Your task to perform on an android device: make emails show in primary in the gmail app Image 0: 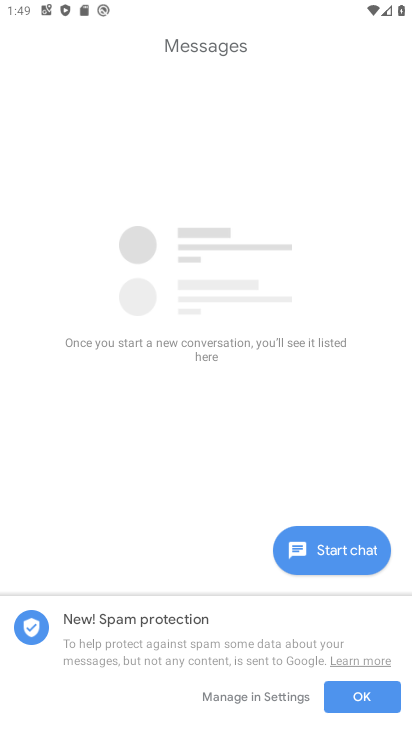
Step 0: press home button
Your task to perform on an android device: make emails show in primary in the gmail app Image 1: 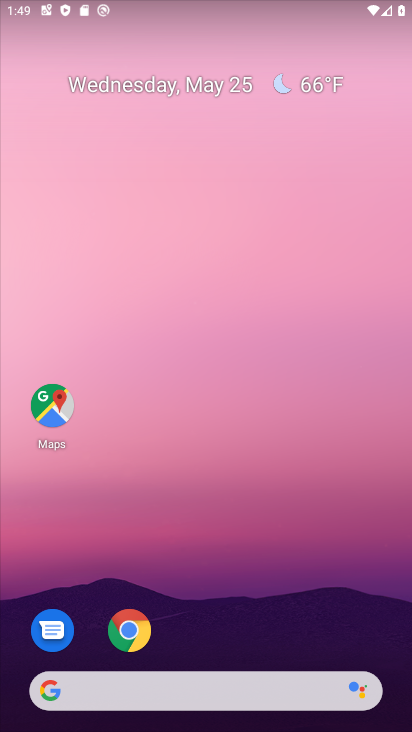
Step 1: drag from (210, 643) to (215, 158)
Your task to perform on an android device: make emails show in primary in the gmail app Image 2: 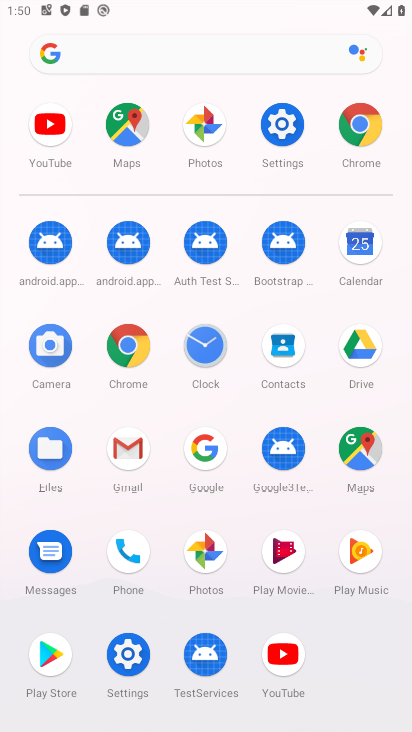
Step 2: click (123, 443)
Your task to perform on an android device: make emails show in primary in the gmail app Image 3: 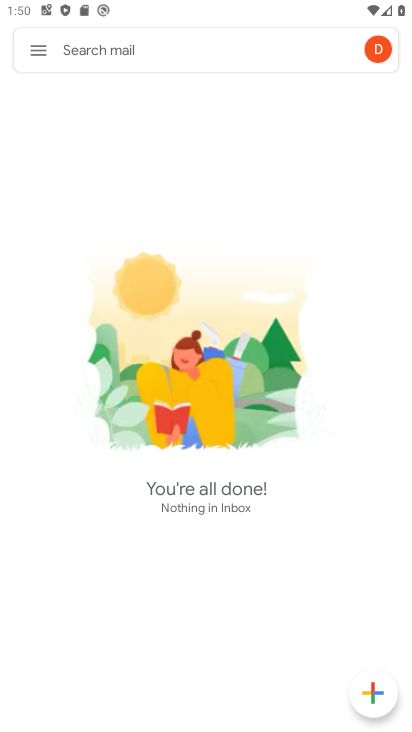
Step 3: click (41, 45)
Your task to perform on an android device: make emails show in primary in the gmail app Image 4: 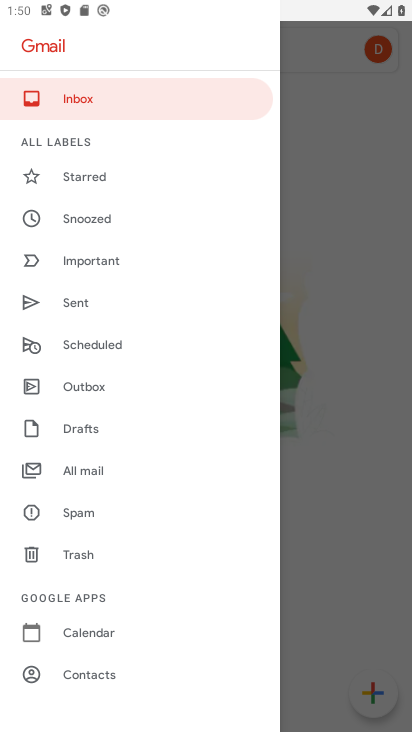
Step 4: drag from (123, 637) to (144, 249)
Your task to perform on an android device: make emails show in primary in the gmail app Image 5: 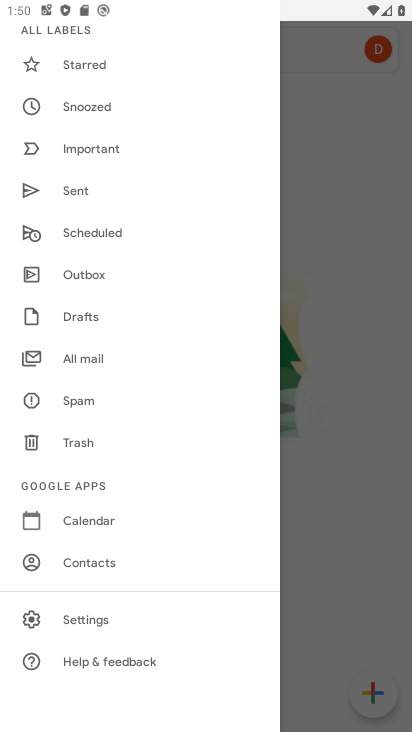
Step 5: click (119, 621)
Your task to perform on an android device: make emails show in primary in the gmail app Image 6: 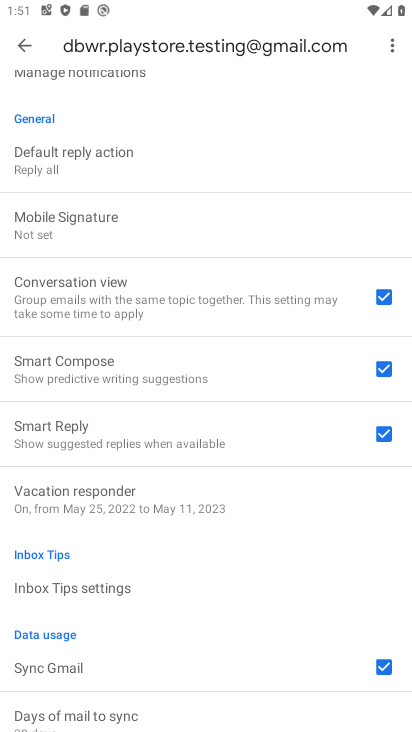
Step 6: drag from (184, 578) to (201, 304)
Your task to perform on an android device: make emails show in primary in the gmail app Image 7: 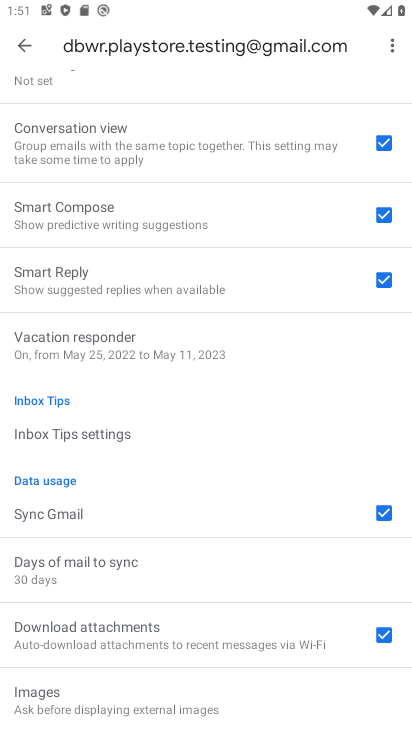
Step 7: drag from (171, 283) to (172, 650)
Your task to perform on an android device: make emails show in primary in the gmail app Image 8: 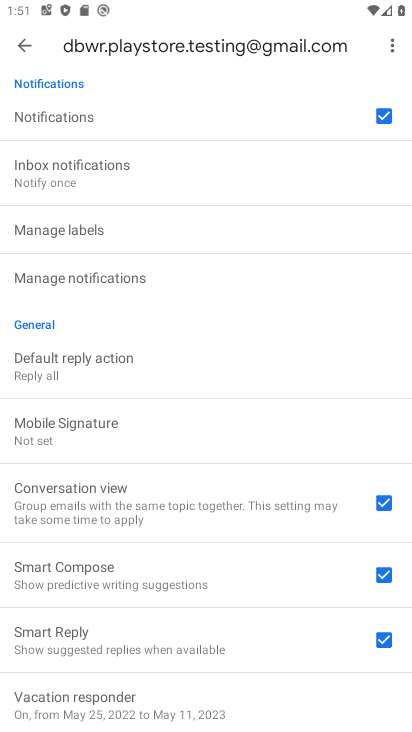
Step 8: drag from (94, 135) to (89, 714)
Your task to perform on an android device: make emails show in primary in the gmail app Image 9: 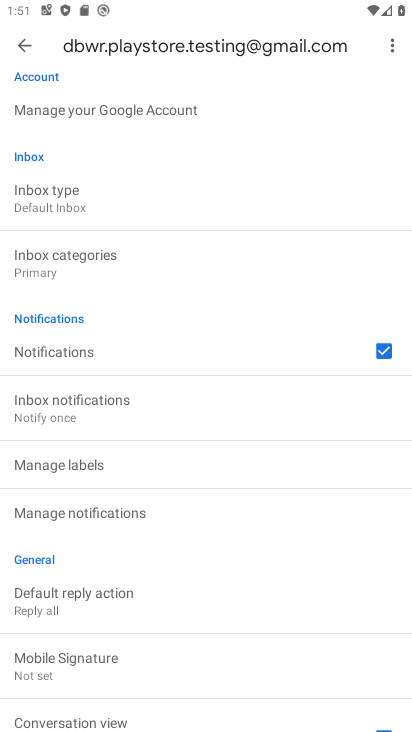
Step 9: click (87, 207)
Your task to perform on an android device: make emails show in primary in the gmail app Image 10: 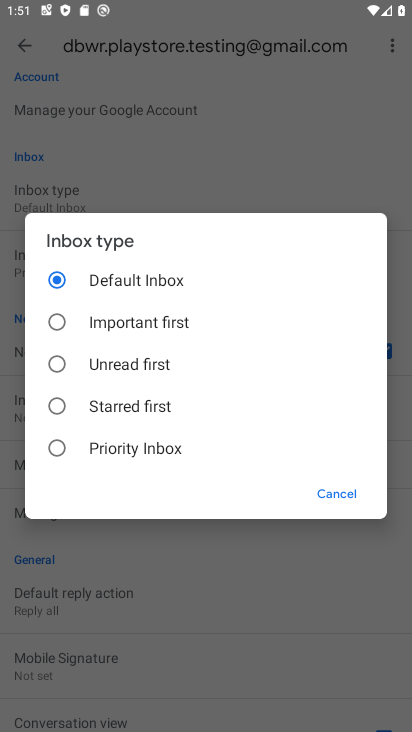
Step 10: click (88, 279)
Your task to perform on an android device: make emails show in primary in the gmail app Image 11: 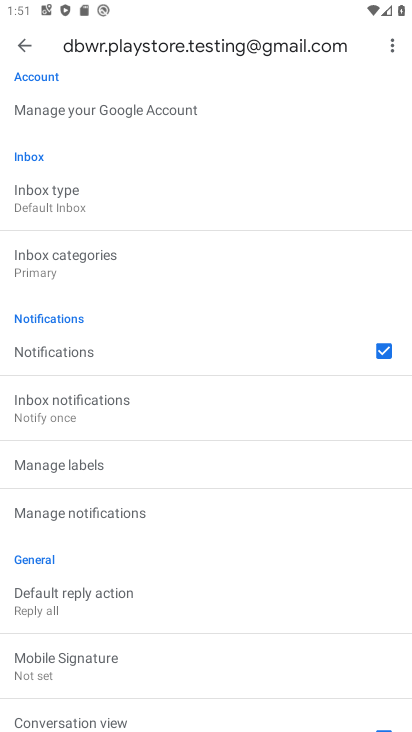
Step 11: task complete